Your task to perform on an android device: open device folders in google photos Image 0: 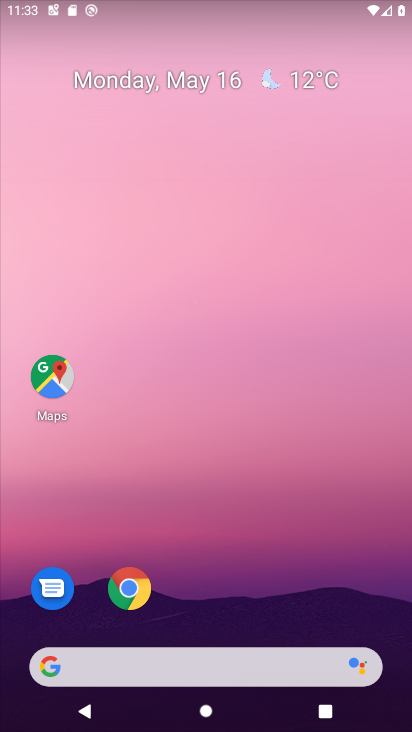
Step 0: drag from (210, 626) to (186, 132)
Your task to perform on an android device: open device folders in google photos Image 1: 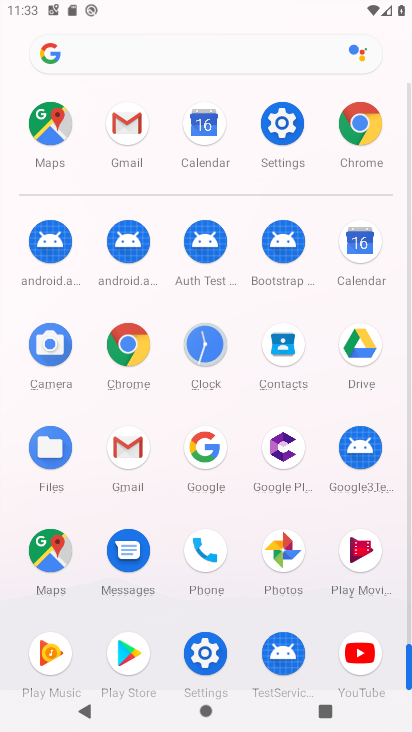
Step 1: click (280, 545)
Your task to perform on an android device: open device folders in google photos Image 2: 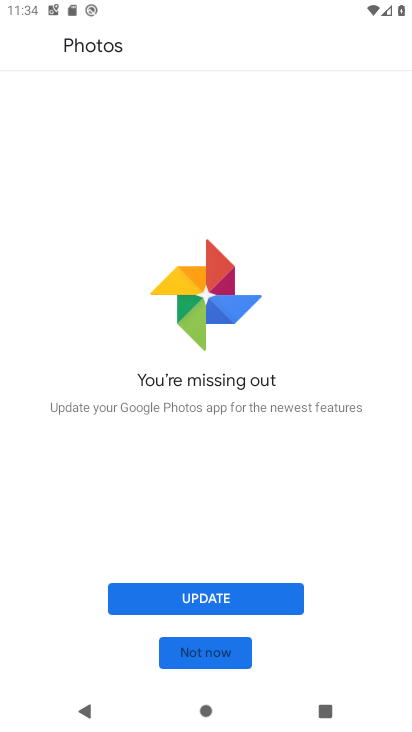
Step 2: click (207, 651)
Your task to perform on an android device: open device folders in google photos Image 3: 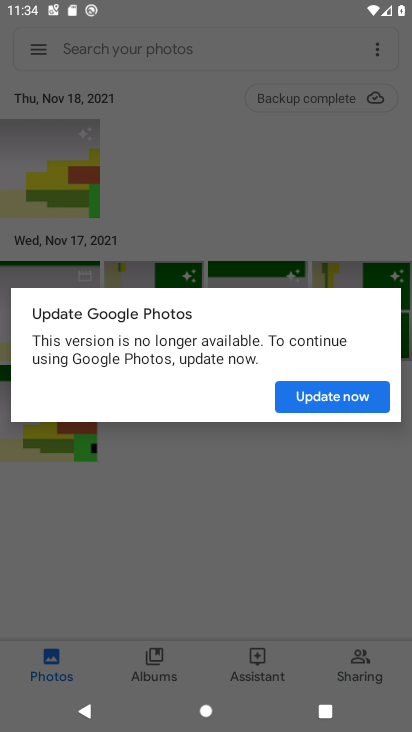
Step 3: click (337, 388)
Your task to perform on an android device: open device folders in google photos Image 4: 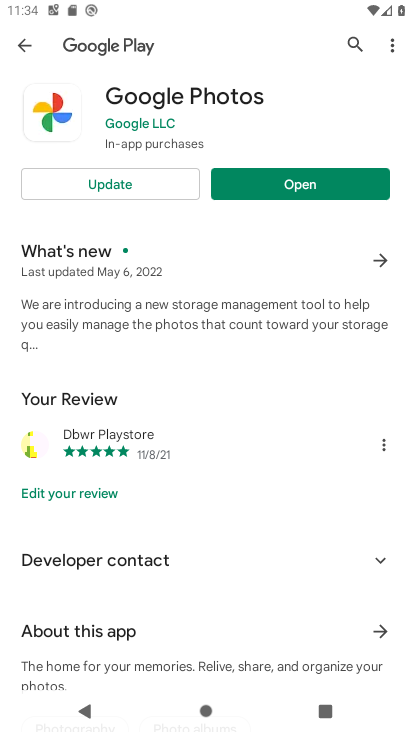
Step 4: click (114, 178)
Your task to perform on an android device: open device folders in google photos Image 5: 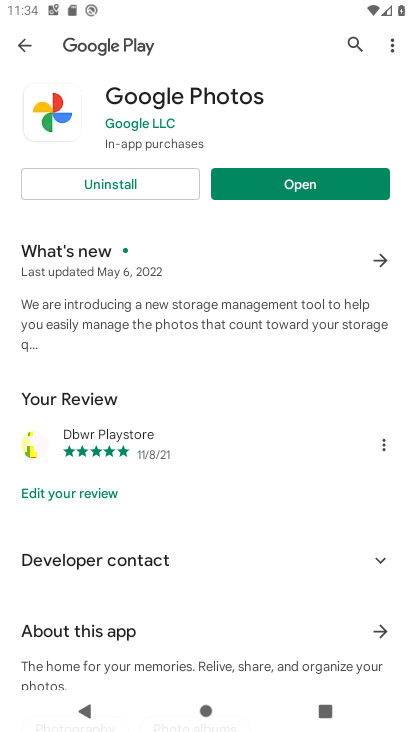
Step 5: click (300, 184)
Your task to perform on an android device: open device folders in google photos Image 6: 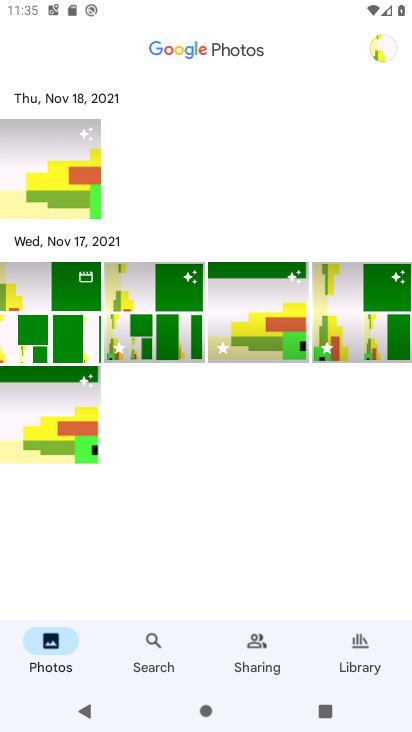
Step 6: click (148, 646)
Your task to perform on an android device: open device folders in google photos Image 7: 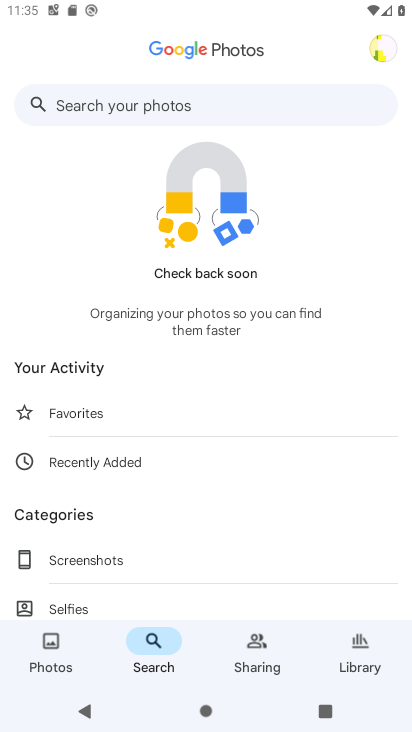
Step 7: click (115, 97)
Your task to perform on an android device: open device folders in google photos Image 8: 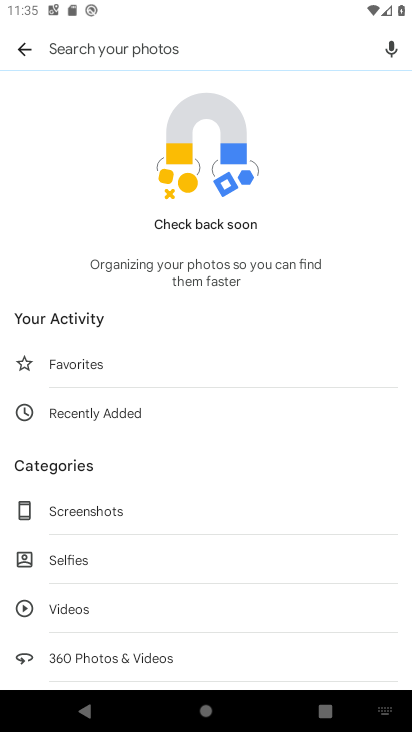
Step 8: type "device"
Your task to perform on an android device: open device folders in google photos Image 9: 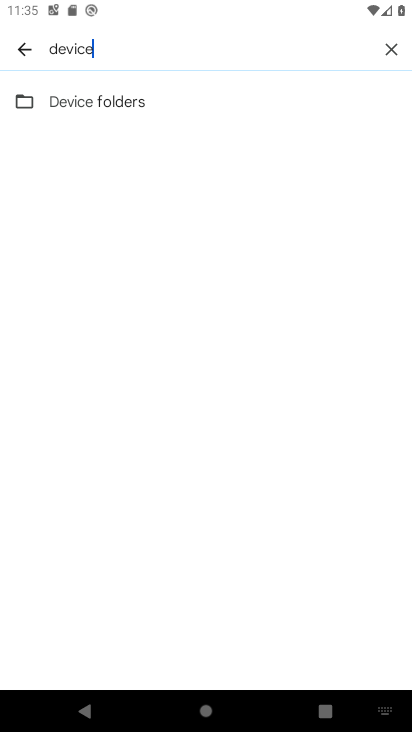
Step 9: click (154, 96)
Your task to perform on an android device: open device folders in google photos Image 10: 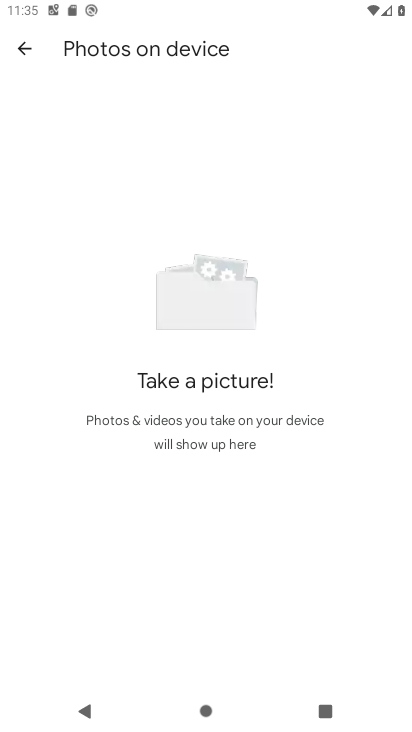
Step 10: task complete